Your task to perform on an android device: Open Yahoo.com Image 0: 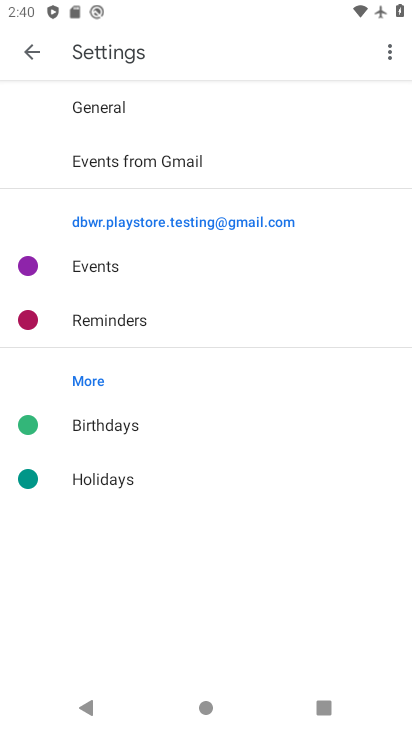
Step 0: press home button
Your task to perform on an android device: Open Yahoo.com Image 1: 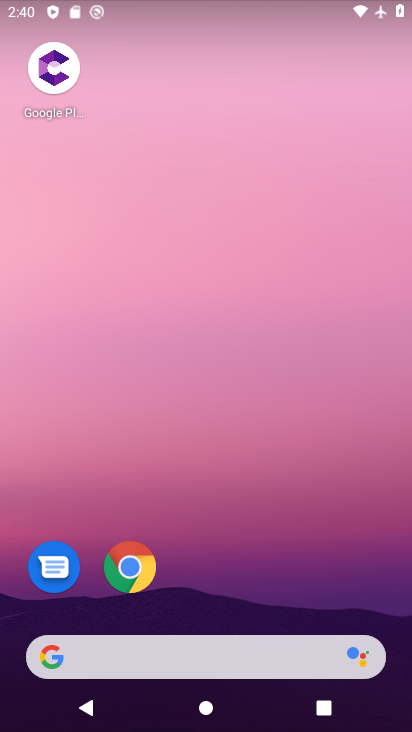
Step 1: drag from (280, 491) to (245, 142)
Your task to perform on an android device: Open Yahoo.com Image 2: 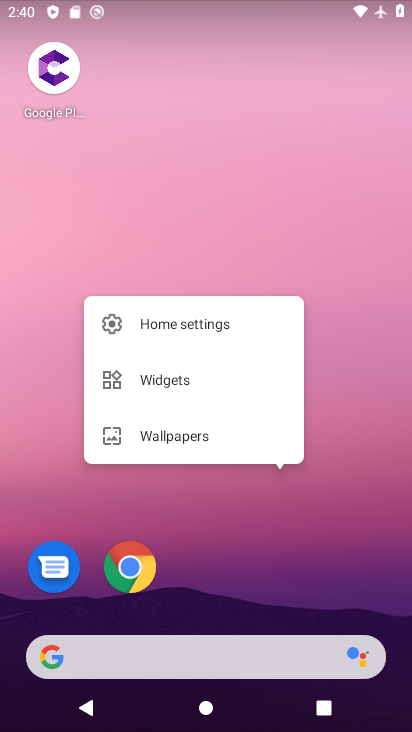
Step 2: drag from (238, 478) to (142, 151)
Your task to perform on an android device: Open Yahoo.com Image 3: 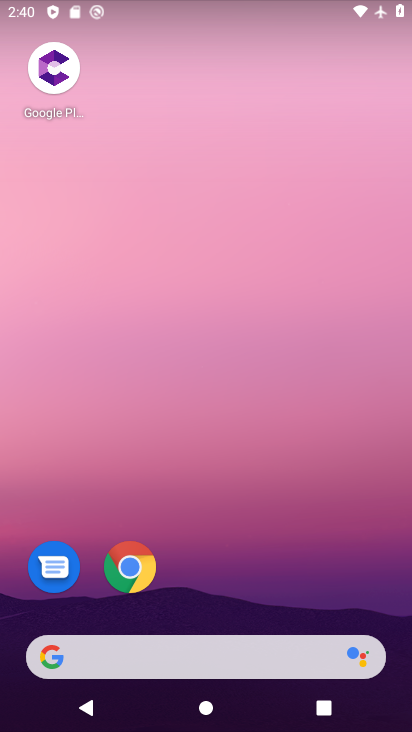
Step 3: drag from (327, 452) to (276, 38)
Your task to perform on an android device: Open Yahoo.com Image 4: 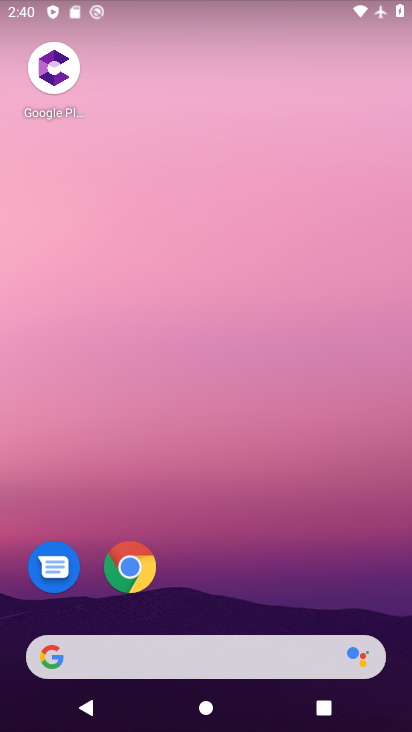
Step 4: drag from (304, 455) to (213, 86)
Your task to perform on an android device: Open Yahoo.com Image 5: 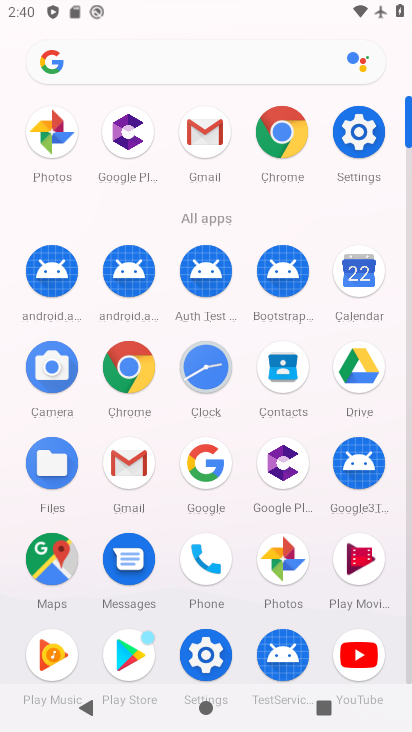
Step 5: click (272, 138)
Your task to perform on an android device: Open Yahoo.com Image 6: 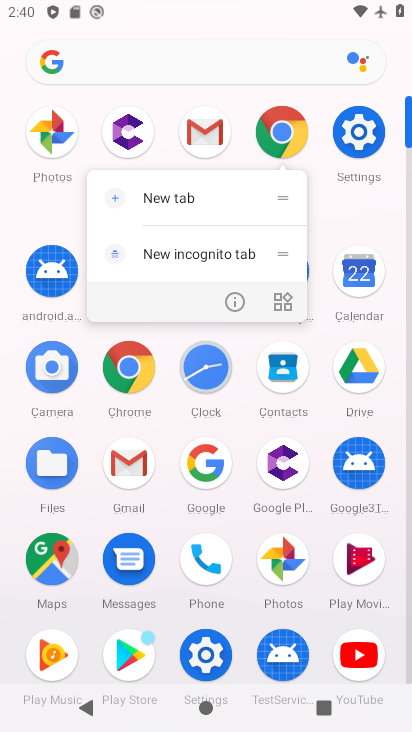
Step 6: click (285, 135)
Your task to perform on an android device: Open Yahoo.com Image 7: 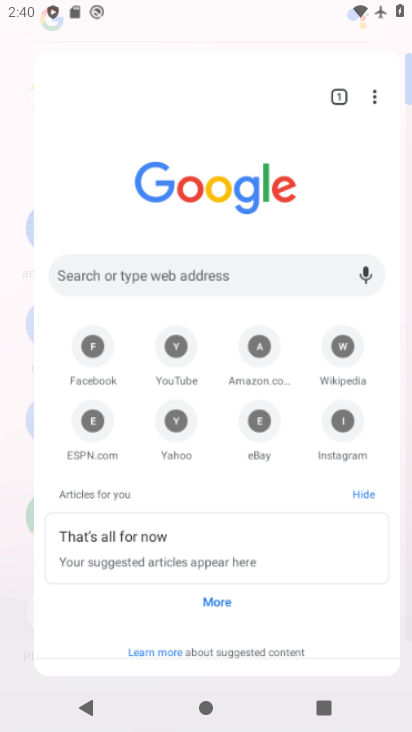
Step 7: click (273, 140)
Your task to perform on an android device: Open Yahoo.com Image 8: 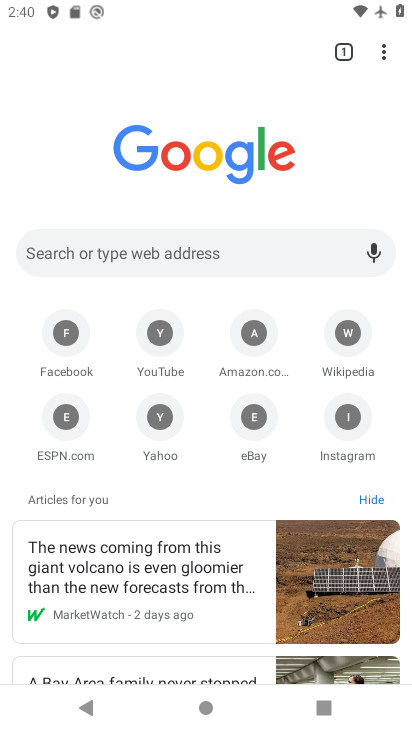
Step 8: click (164, 425)
Your task to perform on an android device: Open Yahoo.com Image 9: 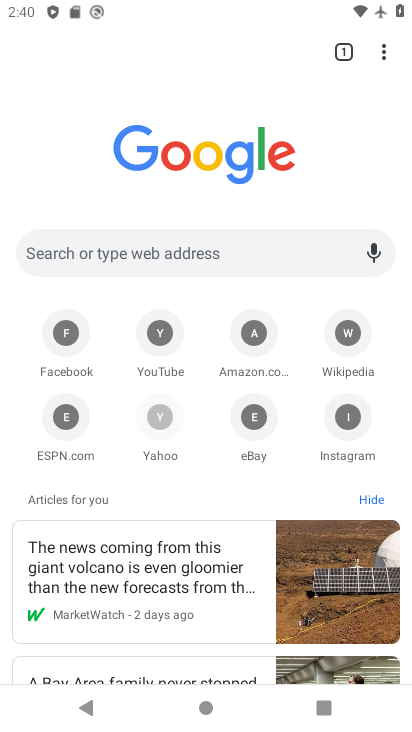
Step 9: click (165, 426)
Your task to perform on an android device: Open Yahoo.com Image 10: 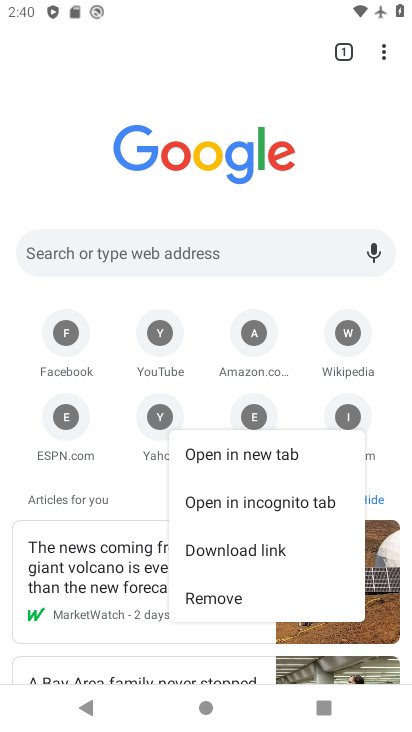
Step 10: click (159, 417)
Your task to perform on an android device: Open Yahoo.com Image 11: 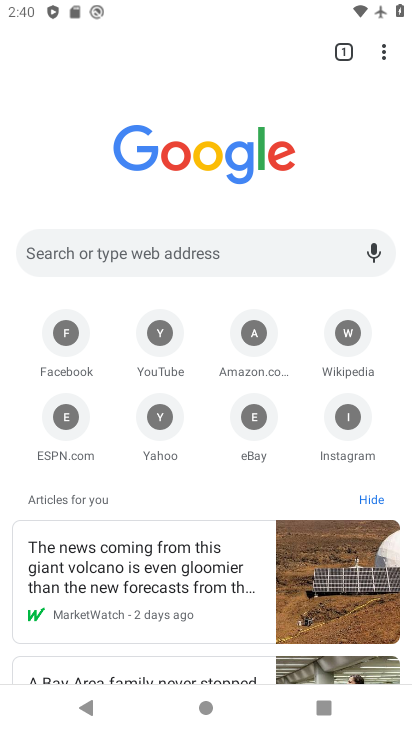
Step 11: click (159, 417)
Your task to perform on an android device: Open Yahoo.com Image 12: 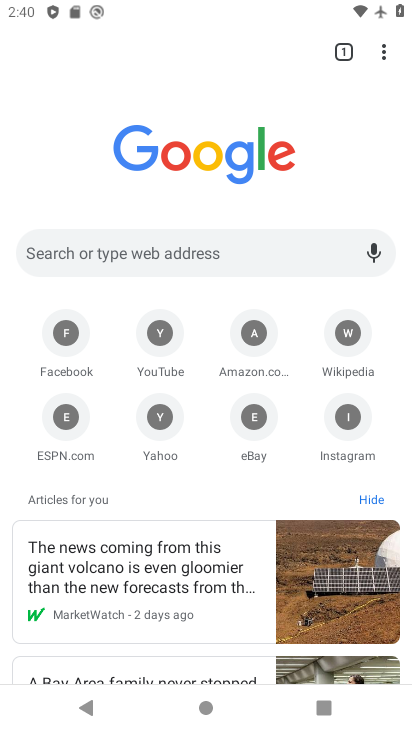
Step 12: click (159, 417)
Your task to perform on an android device: Open Yahoo.com Image 13: 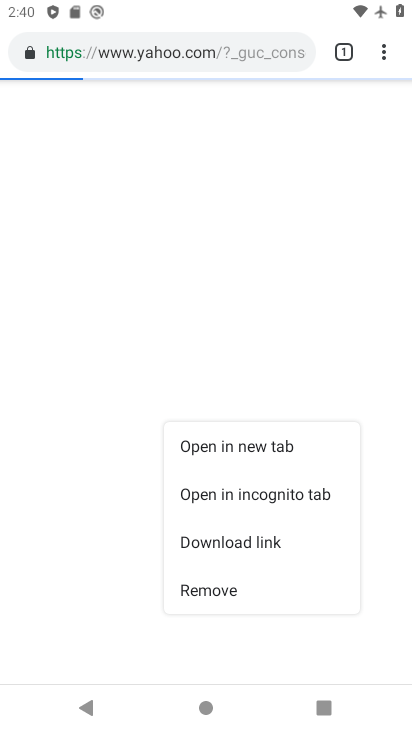
Step 13: click (159, 417)
Your task to perform on an android device: Open Yahoo.com Image 14: 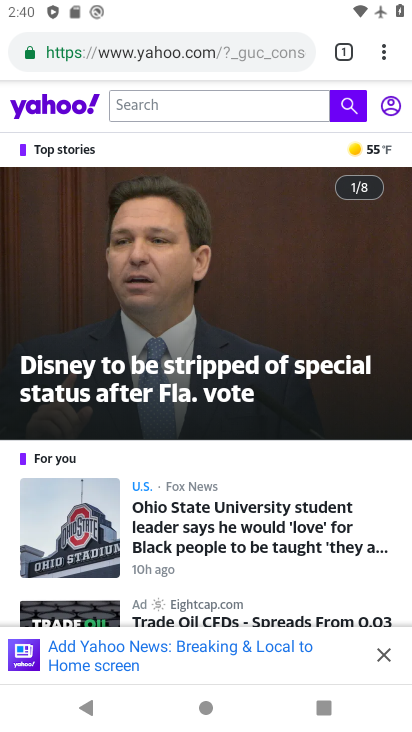
Step 14: task complete